Your task to perform on an android device: turn on the 24-hour format for clock Image 0: 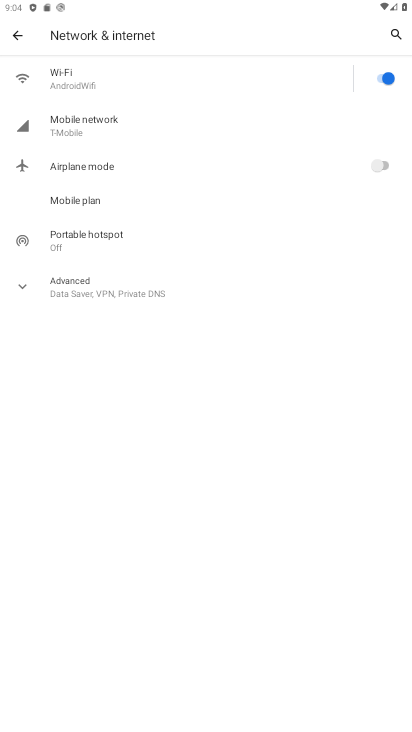
Step 0: press home button
Your task to perform on an android device: turn on the 24-hour format for clock Image 1: 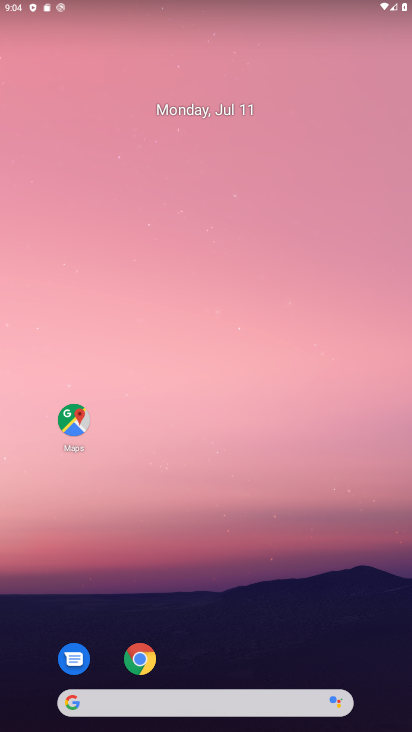
Step 1: drag from (352, 636) to (359, 106)
Your task to perform on an android device: turn on the 24-hour format for clock Image 2: 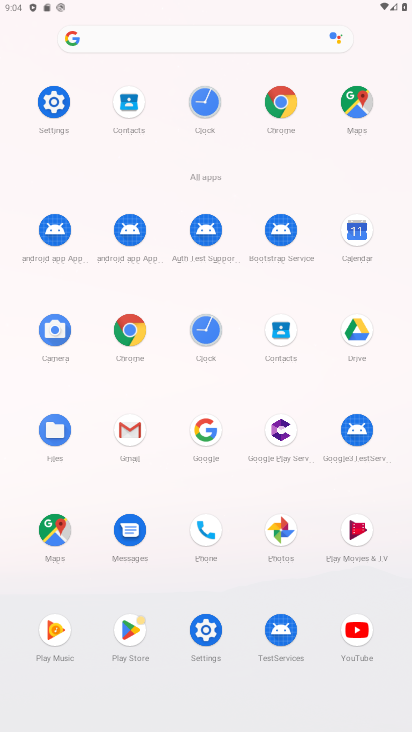
Step 2: click (209, 333)
Your task to perform on an android device: turn on the 24-hour format for clock Image 3: 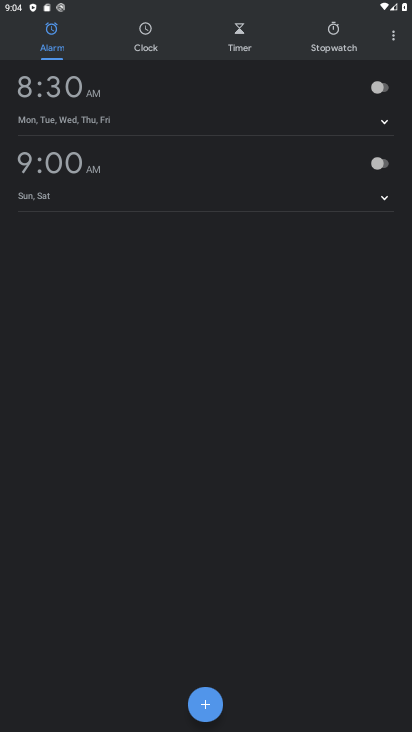
Step 3: click (392, 37)
Your task to perform on an android device: turn on the 24-hour format for clock Image 4: 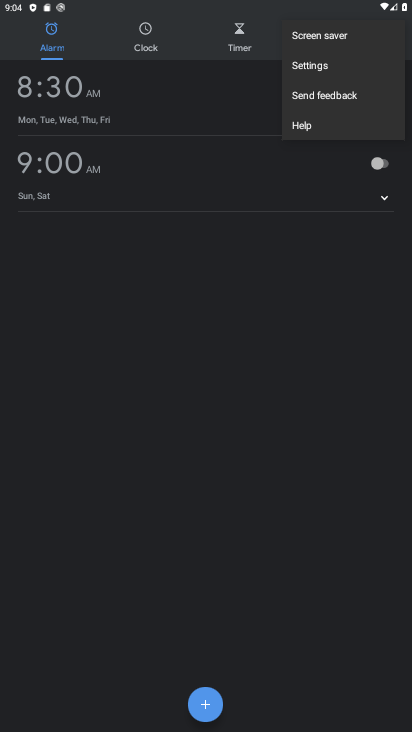
Step 4: click (322, 73)
Your task to perform on an android device: turn on the 24-hour format for clock Image 5: 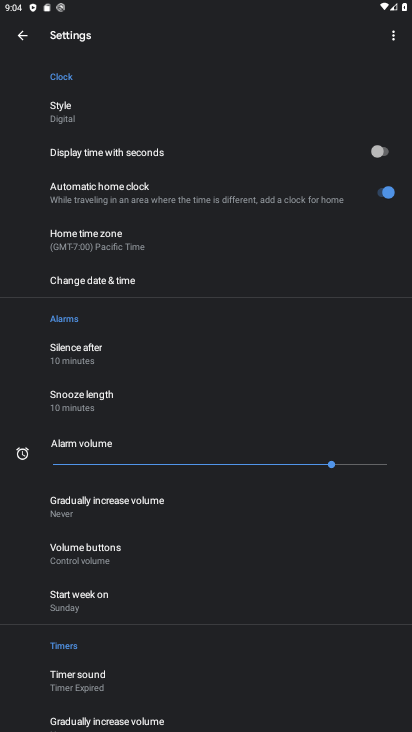
Step 5: drag from (278, 314) to (278, 248)
Your task to perform on an android device: turn on the 24-hour format for clock Image 6: 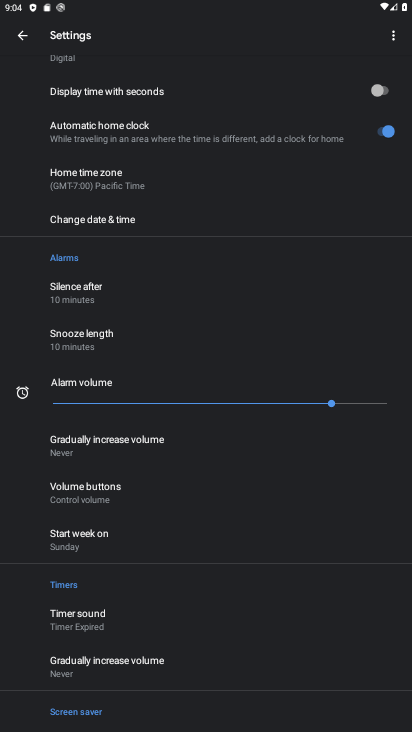
Step 6: drag from (280, 318) to (281, 251)
Your task to perform on an android device: turn on the 24-hour format for clock Image 7: 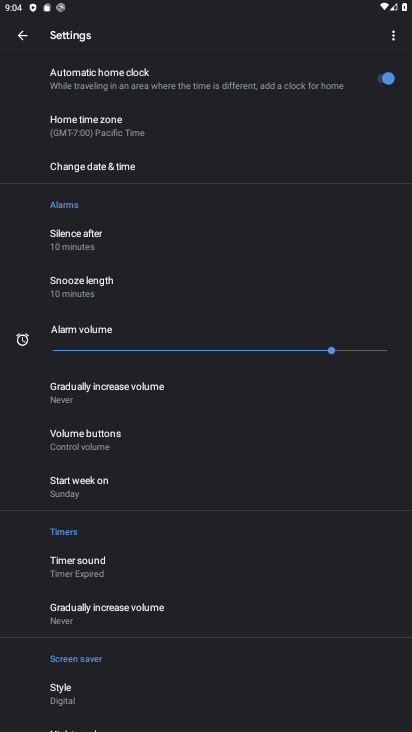
Step 7: drag from (283, 382) to (292, 250)
Your task to perform on an android device: turn on the 24-hour format for clock Image 8: 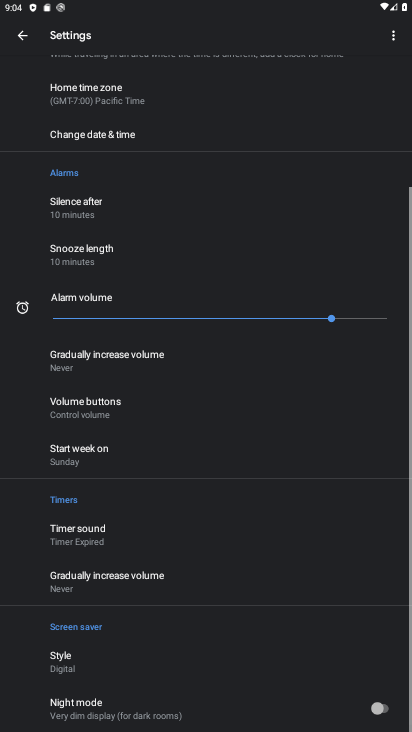
Step 8: drag from (293, 216) to (295, 314)
Your task to perform on an android device: turn on the 24-hour format for clock Image 9: 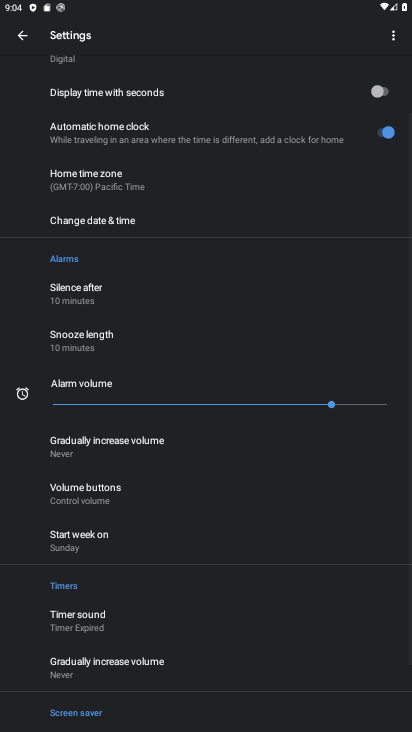
Step 9: drag from (295, 232) to (288, 334)
Your task to perform on an android device: turn on the 24-hour format for clock Image 10: 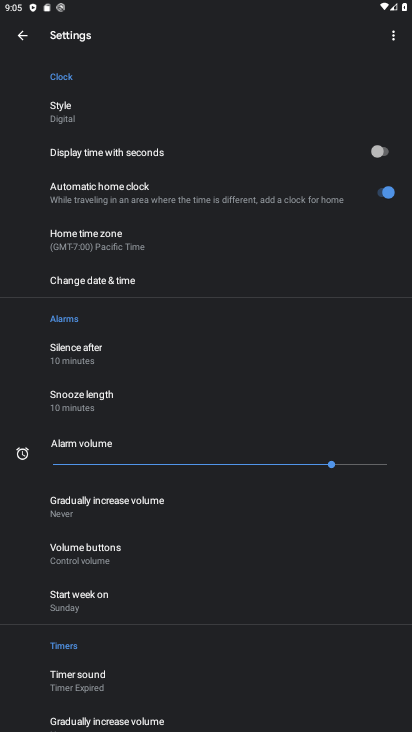
Step 10: drag from (287, 255) to (280, 350)
Your task to perform on an android device: turn on the 24-hour format for clock Image 11: 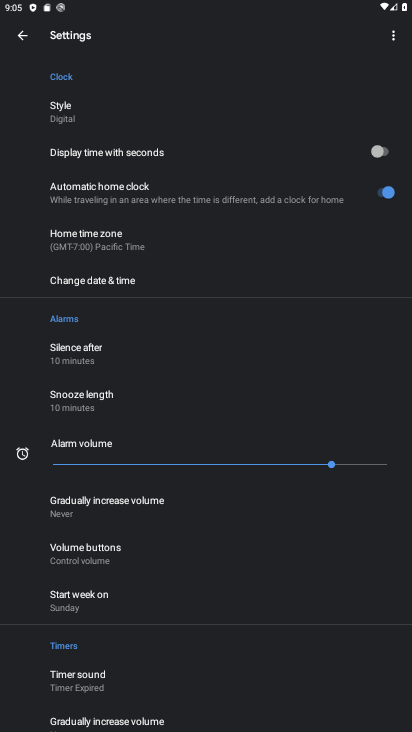
Step 11: click (133, 284)
Your task to perform on an android device: turn on the 24-hour format for clock Image 12: 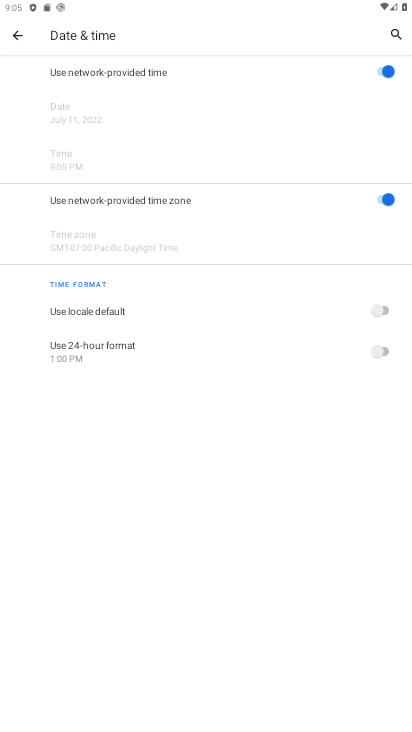
Step 12: task complete